Your task to perform on an android device: Open Chrome and go to settings Image 0: 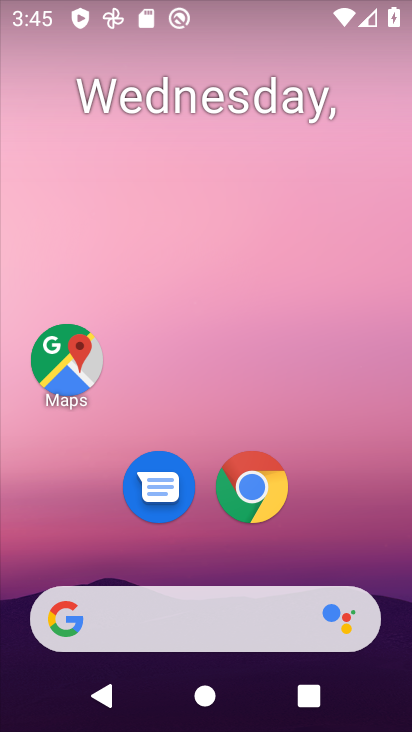
Step 0: drag from (352, 514) to (368, 135)
Your task to perform on an android device: Open Chrome and go to settings Image 1: 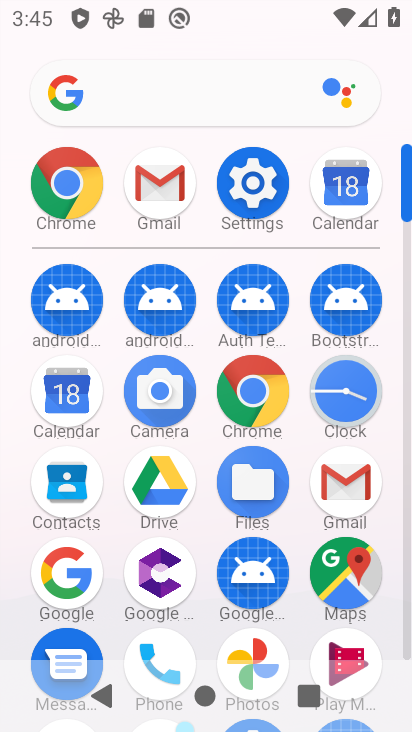
Step 1: click (272, 397)
Your task to perform on an android device: Open Chrome and go to settings Image 2: 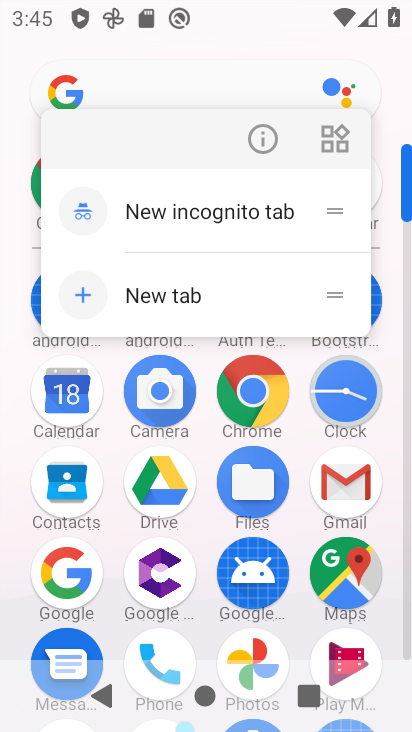
Step 2: click (272, 397)
Your task to perform on an android device: Open Chrome and go to settings Image 3: 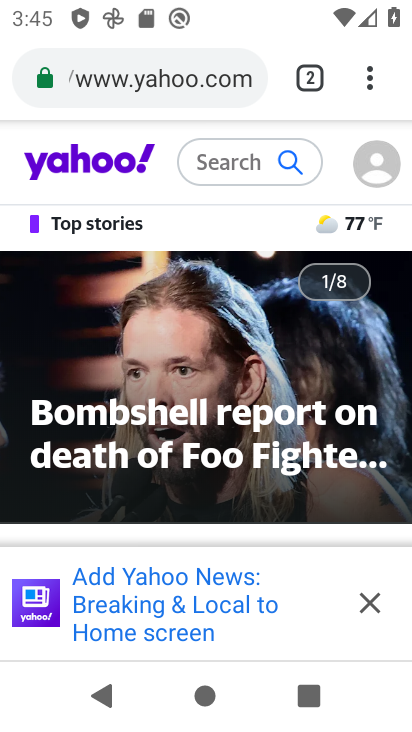
Step 3: click (371, 84)
Your task to perform on an android device: Open Chrome and go to settings Image 4: 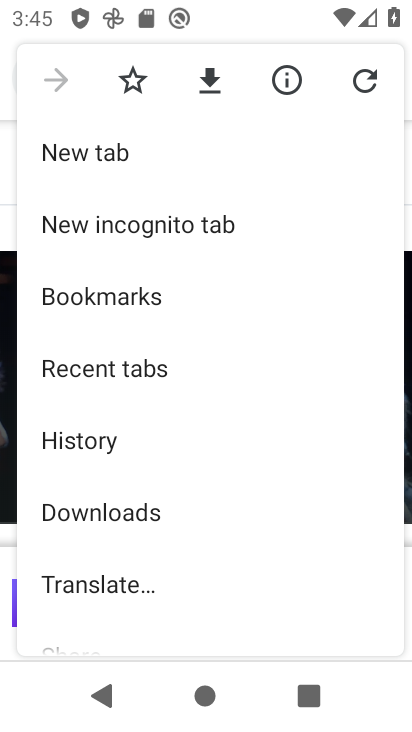
Step 4: drag from (312, 532) to (311, 390)
Your task to perform on an android device: Open Chrome and go to settings Image 5: 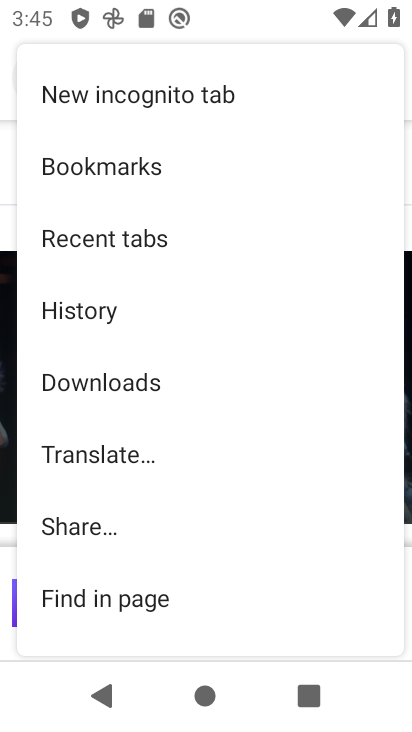
Step 5: drag from (317, 539) to (315, 403)
Your task to perform on an android device: Open Chrome and go to settings Image 6: 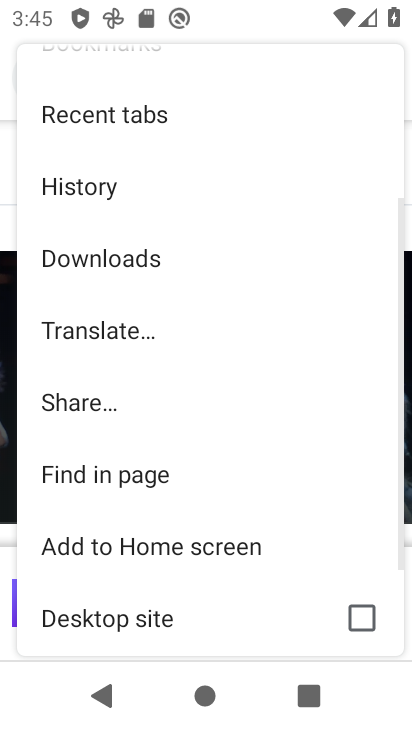
Step 6: drag from (327, 570) to (331, 452)
Your task to perform on an android device: Open Chrome and go to settings Image 7: 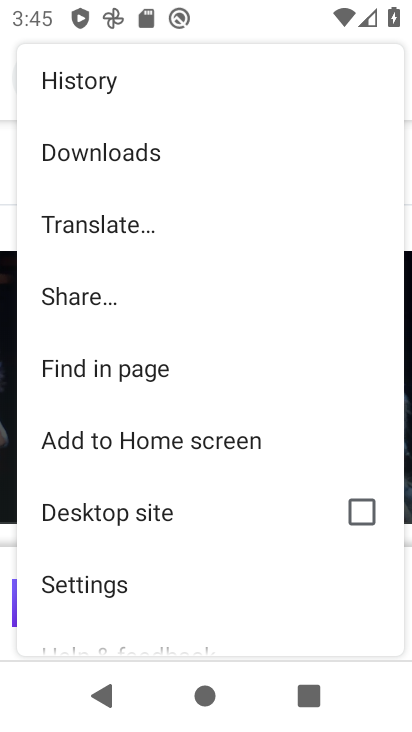
Step 7: drag from (310, 586) to (300, 474)
Your task to perform on an android device: Open Chrome and go to settings Image 8: 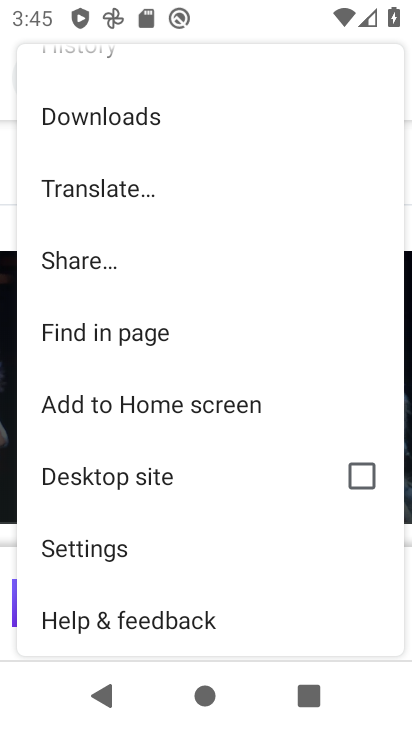
Step 8: drag from (301, 548) to (304, 435)
Your task to perform on an android device: Open Chrome and go to settings Image 9: 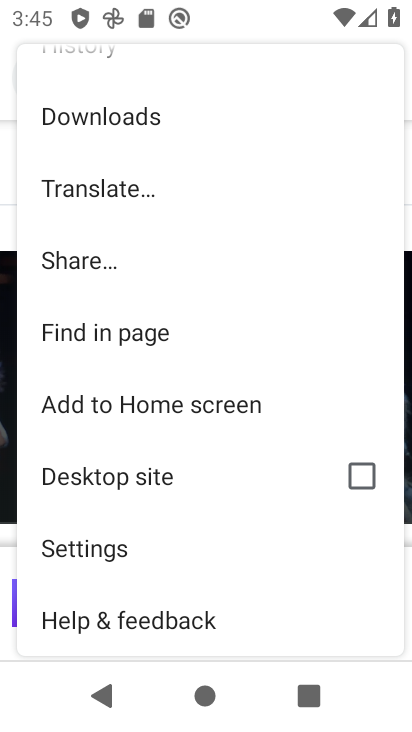
Step 9: click (179, 561)
Your task to perform on an android device: Open Chrome and go to settings Image 10: 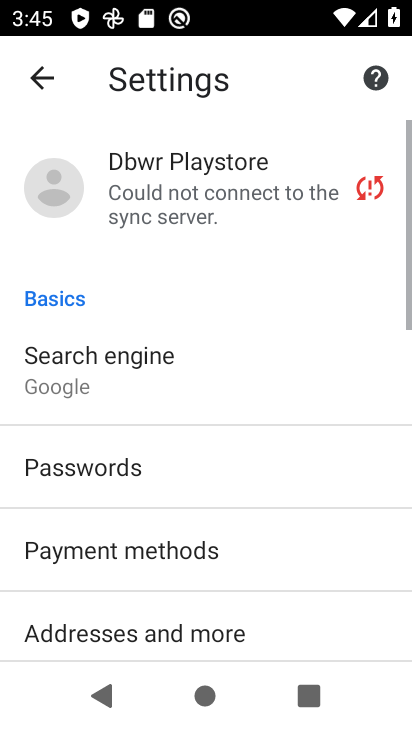
Step 10: task complete